Your task to perform on an android device: turn off javascript in the chrome app Image 0: 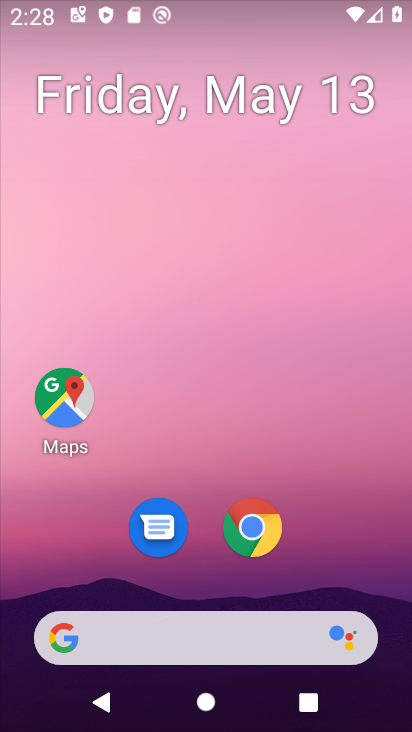
Step 0: click (247, 529)
Your task to perform on an android device: turn off javascript in the chrome app Image 1: 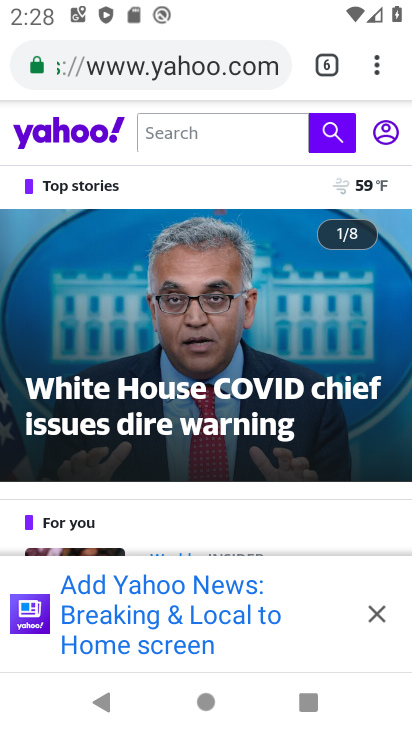
Step 1: click (391, 59)
Your task to perform on an android device: turn off javascript in the chrome app Image 2: 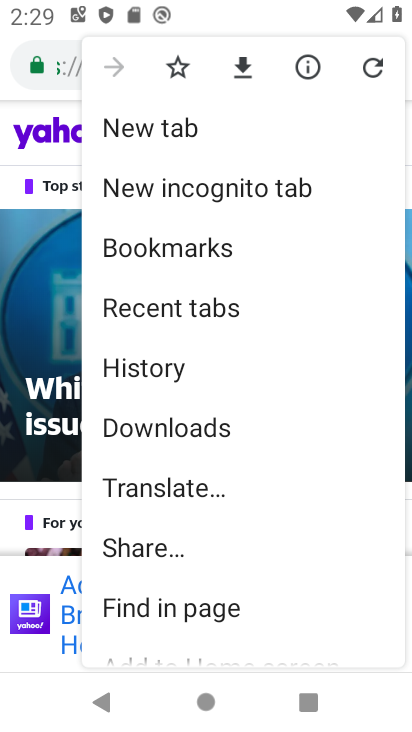
Step 2: drag from (240, 605) to (328, 78)
Your task to perform on an android device: turn off javascript in the chrome app Image 3: 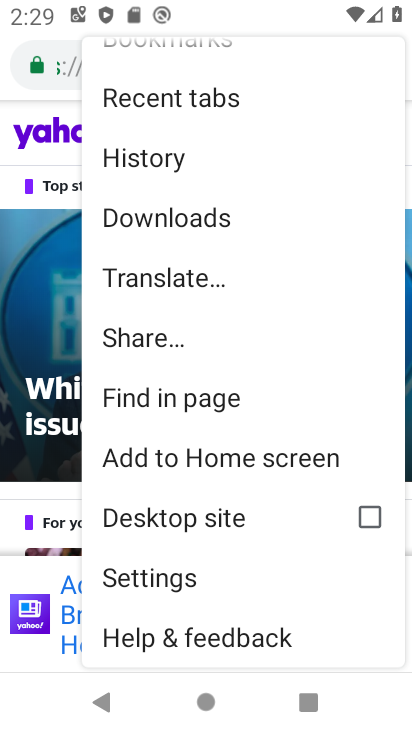
Step 3: click (191, 568)
Your task to perform on an android device: turn off javascript in the chrome app Image 4: 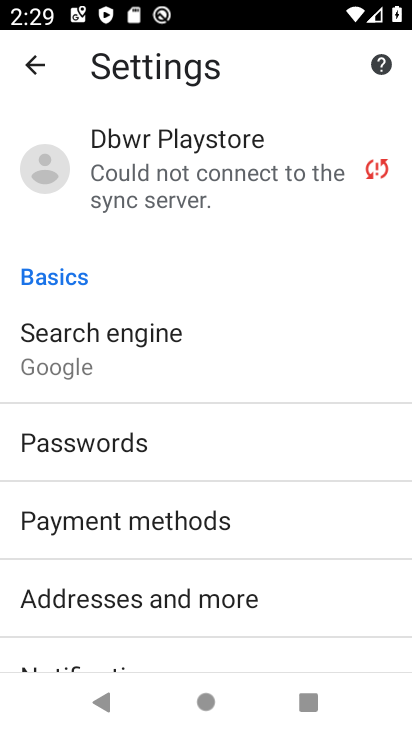
Step 4: drag from (149, 634) to (167, 226)
Your task to perform on an android device: turn off javascript in the chrome app Image 5: 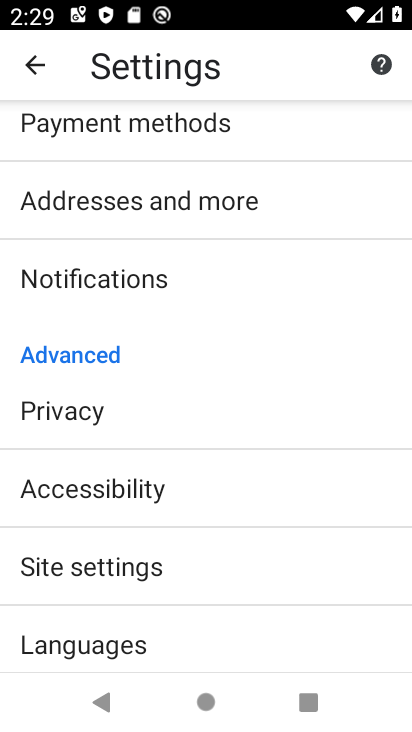
Step 5: click (129, 561)
Your task to perform on an android device: turn off javascript in the chrome app Image 6: 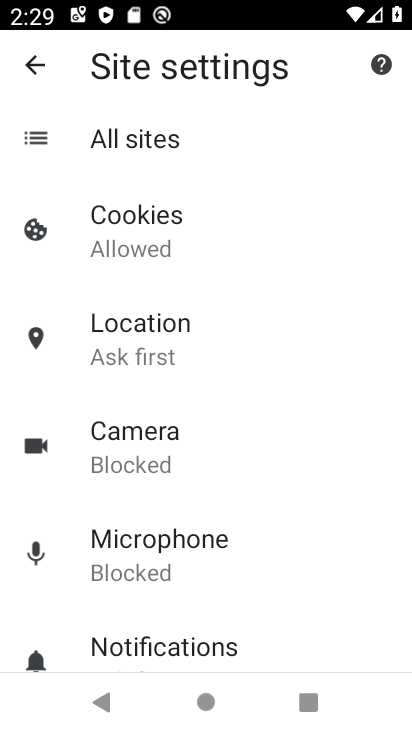
Step 6: drag from (122, 653) to (164, 230)
Your task to perform on an android device: turn off javascript in the chrome app Image 7: 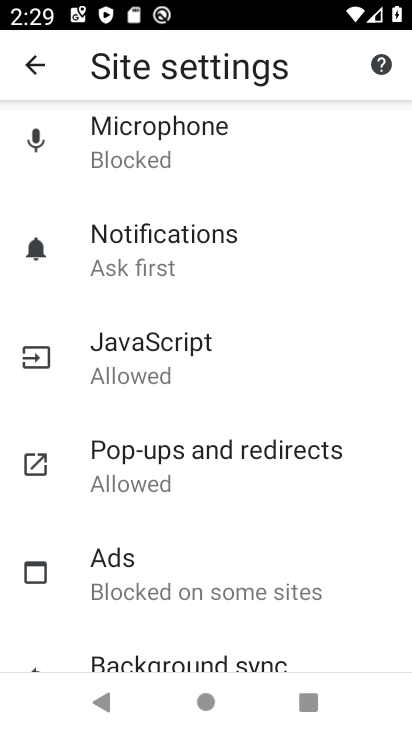
Step 7: click (165, 367)
Your task to perform on an android device: turn off javascript in the chrome app Image 8: 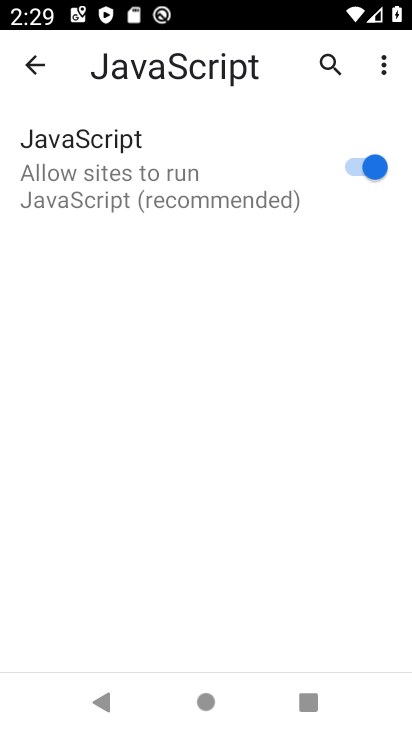
Step 8: click (356, 162)
Your task to perform on an android device: turn off javascript in the chrome app Image 9: 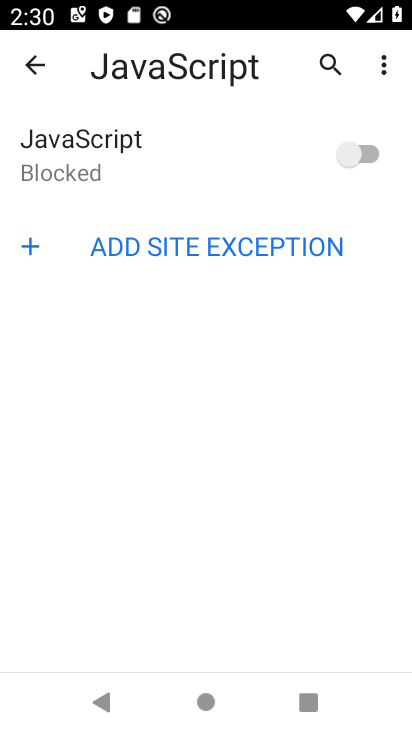
Step 9: task complete